Your task to perform on an android device: clear history in the chrome app Image 0: 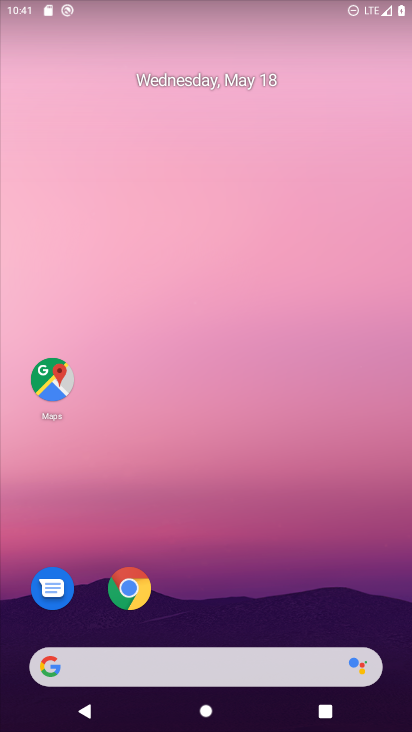
Step 0: click (131, 593)
Your task to perform on an android device: clear history in the chrome app Image 1: 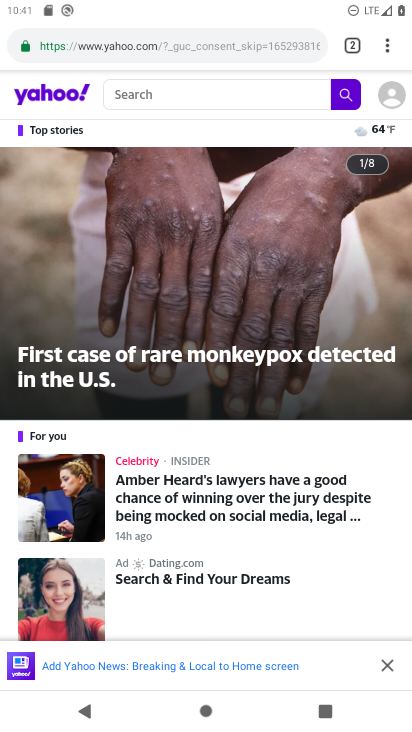
Step 1: click (387, 51)
Your task to perform on an android device: clear history in the chrome app Image 2: 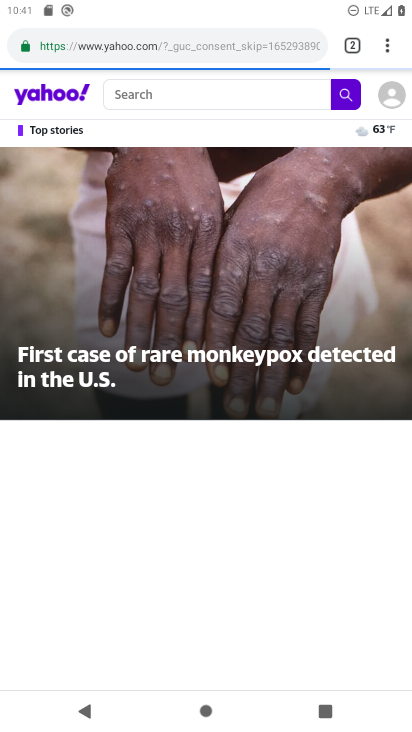
Step 2: click (387, 51)
Your task to perform on an android device: clear history in the chrome app Image 3: 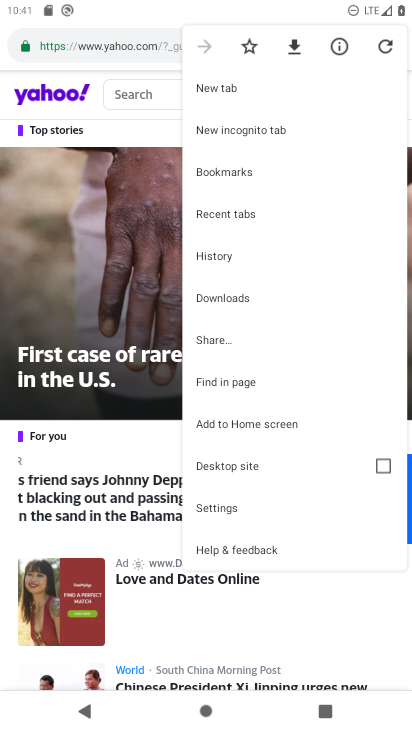
Step 3: click (201, 257)
Your task to perform on an android device: clear history in the chrome app Image 4: 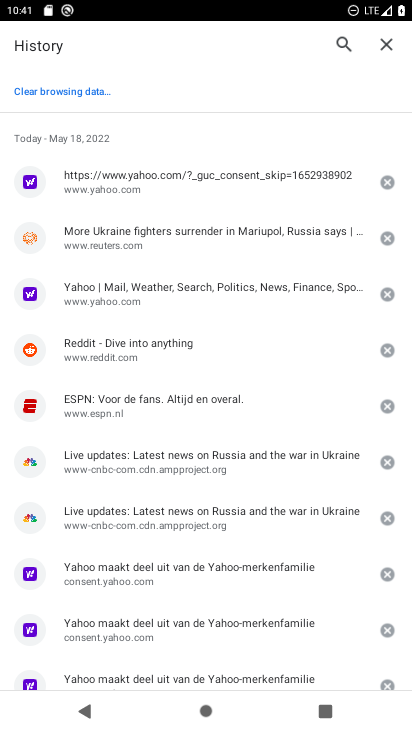
Step 4: click (83, 99)
Your task to perform on an android device: clear history in the chrome app Image 5: 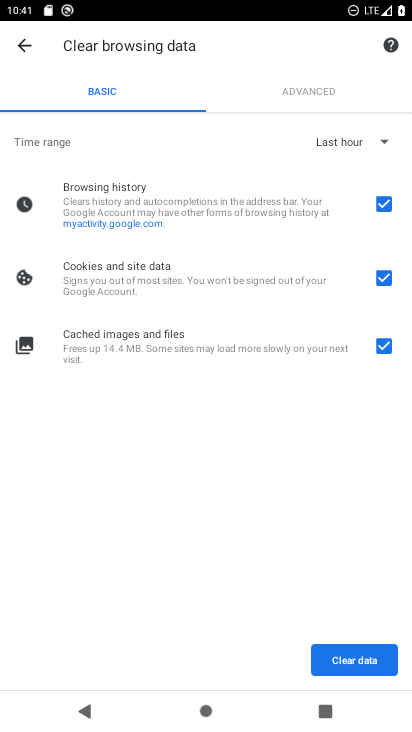
Step 5: click (380, 283)
Your task to perform on an android device: clear history in the chrome app Image 6: 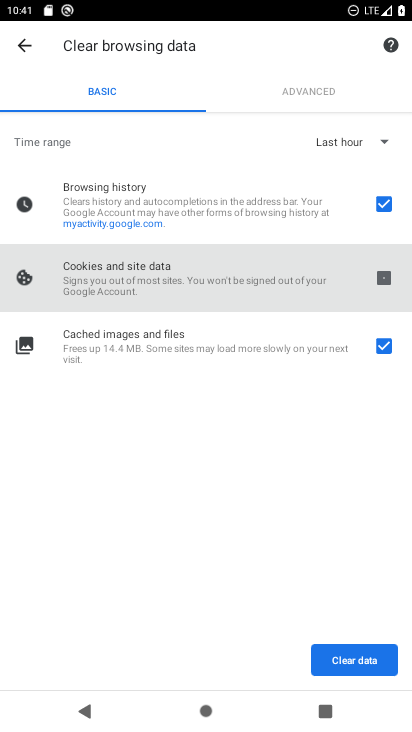
Step 6: click (383, 343)
Your task to perform on an android device: clear history in the chrome app Image 7: 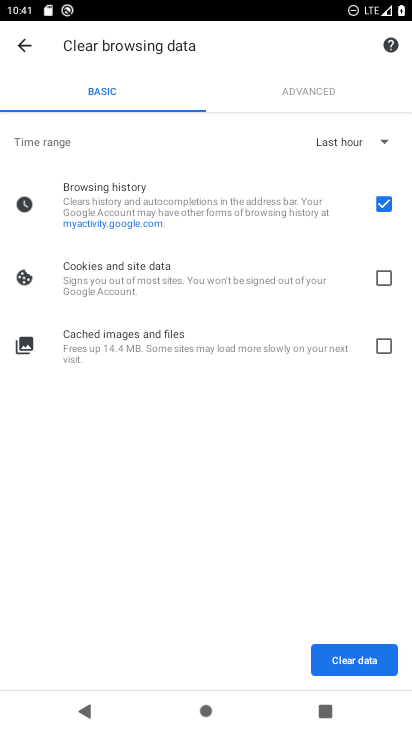
Step 7: click (366, 656)
Your task to perform on an android device: clear history in the chrome app Image 8: 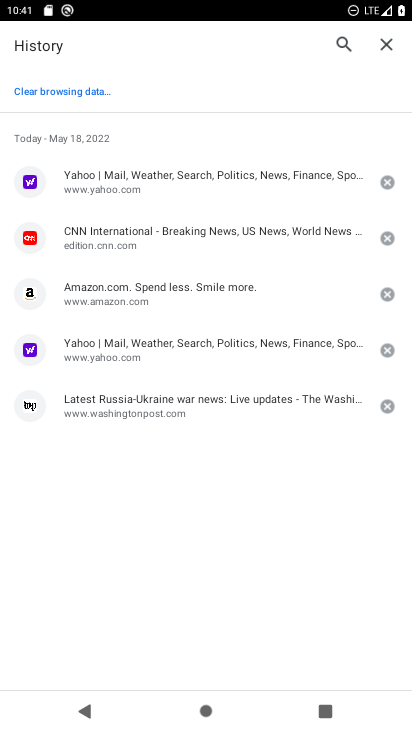
Step 8: click (72, 89)
Your task to perform on an android device: clear history in the chrome app Image 9: 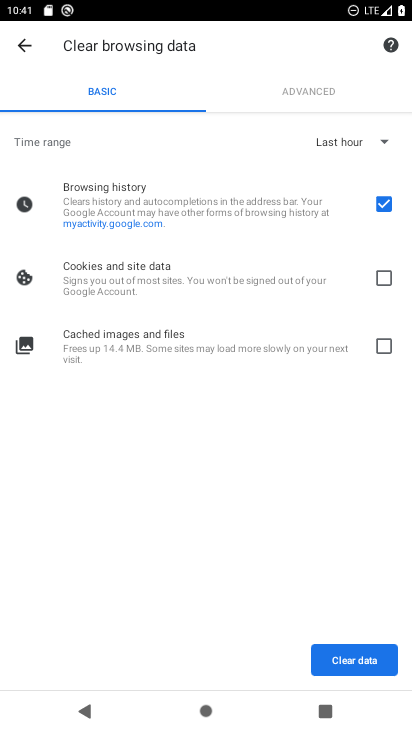
Step 9: click (363, 659)
Your task to perform on an android device: clear history in the chrome app Image 10: 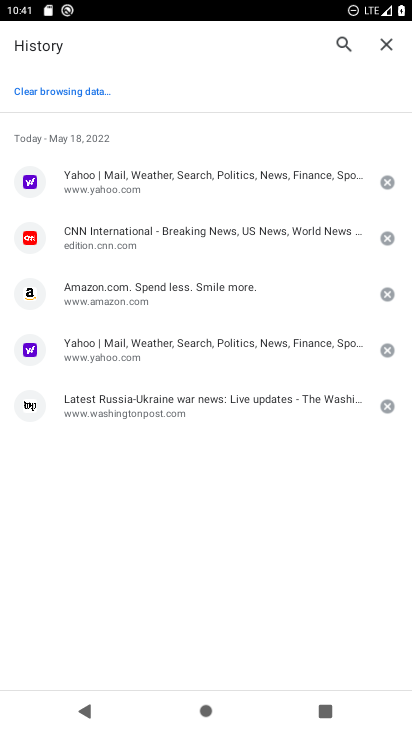
Step 10: click (38, 92)
Your task to perform on an android device: clear history in the chrome app Image 11: 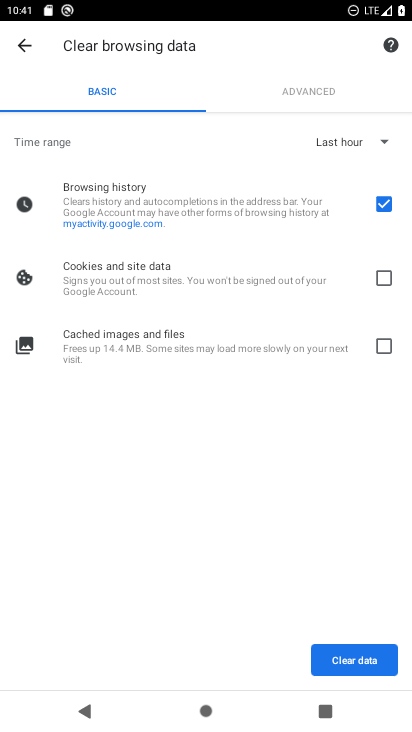
Step 11: click (386, 144)
Your task to perform on an android device: clear history in the chrome app Image 12: 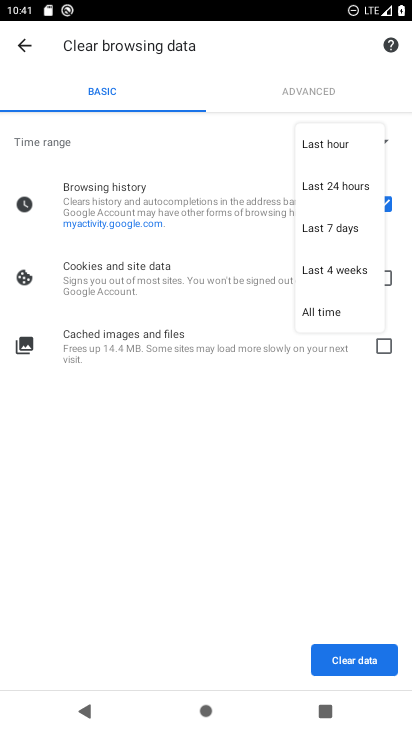
Step 12: click (322, 183)
Your task to perform on an android device: clear history in the chrome app Image 13: 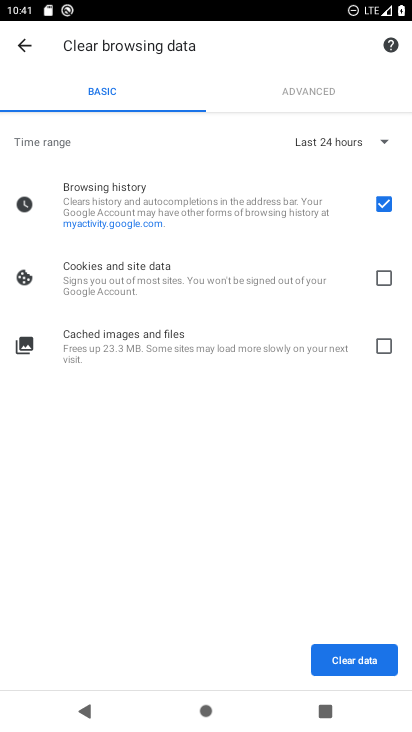
Step 13: click (357, 660)
Your task to perform on an android device: clear history in the chrome app Image 14: 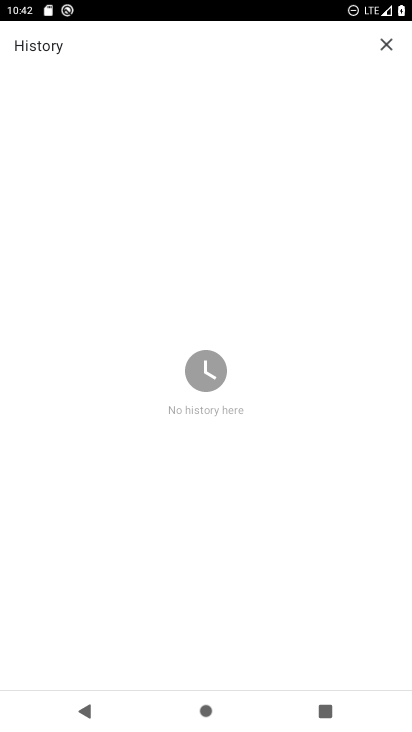
Step 14: task complete